Your task to perform on an android device: Open the phone app and click the voicemail tab. Image 0: 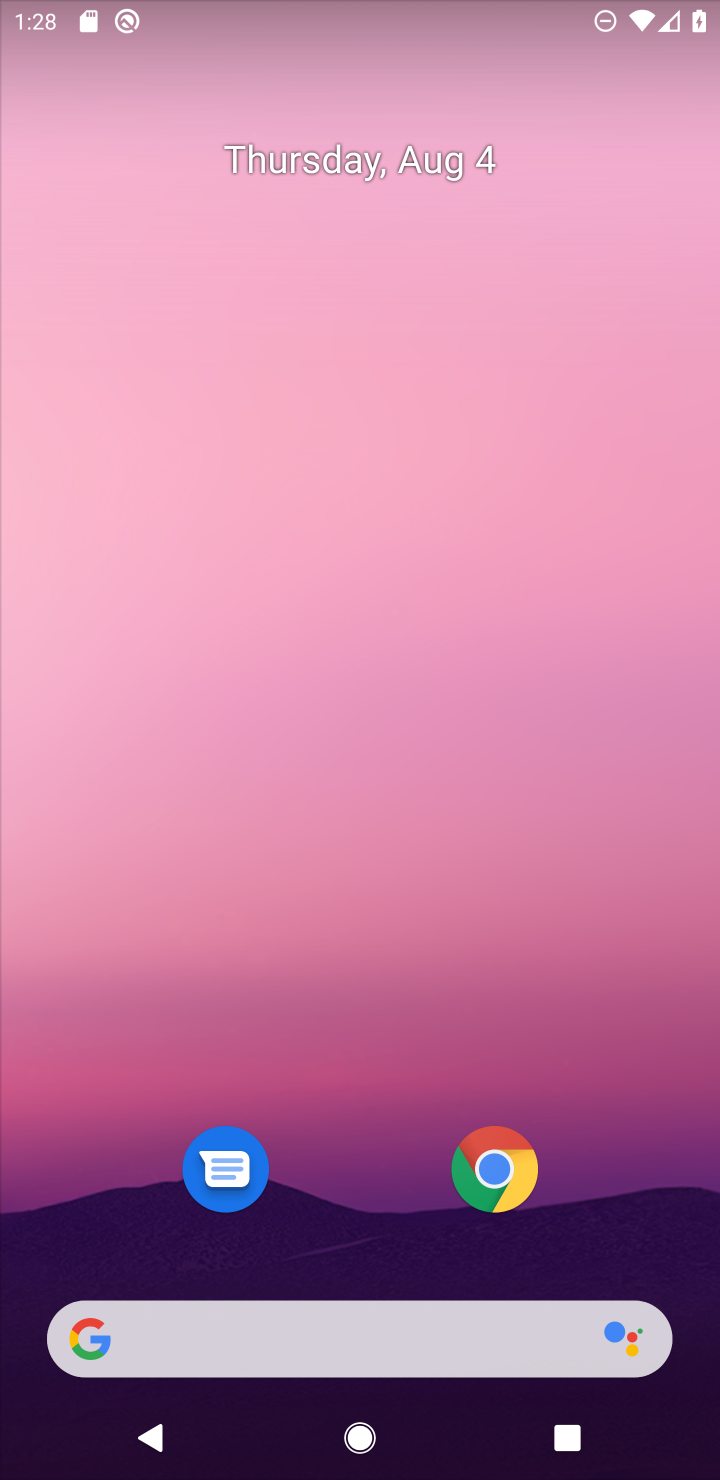
Step 0: drag from (335, 1155) to (421, 42)
Your task to perform on an android device: Open the phone app and click the voicemail tab. Image 1: 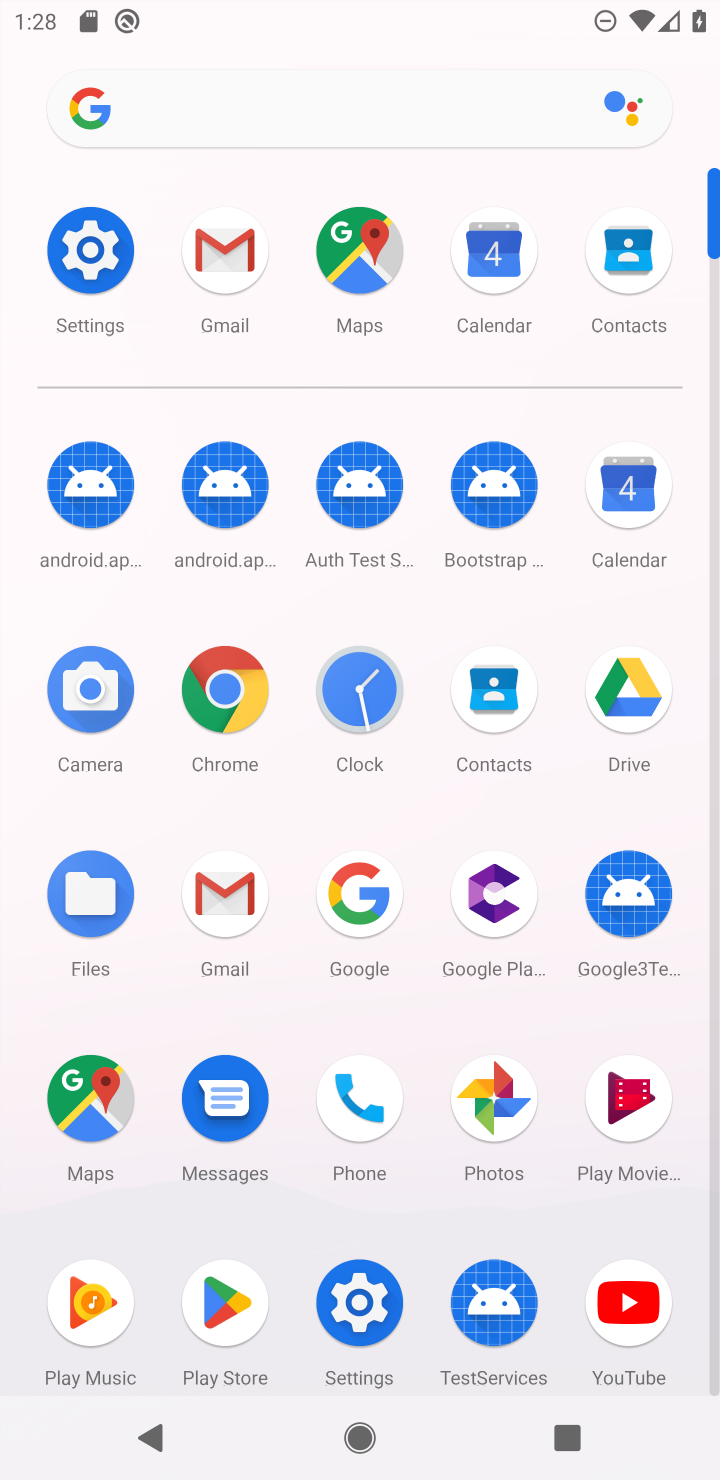
Step 1: click (350, 1114)
Your task to perform on an android device: Open the phone app and click the voicemail tab. Image 2: 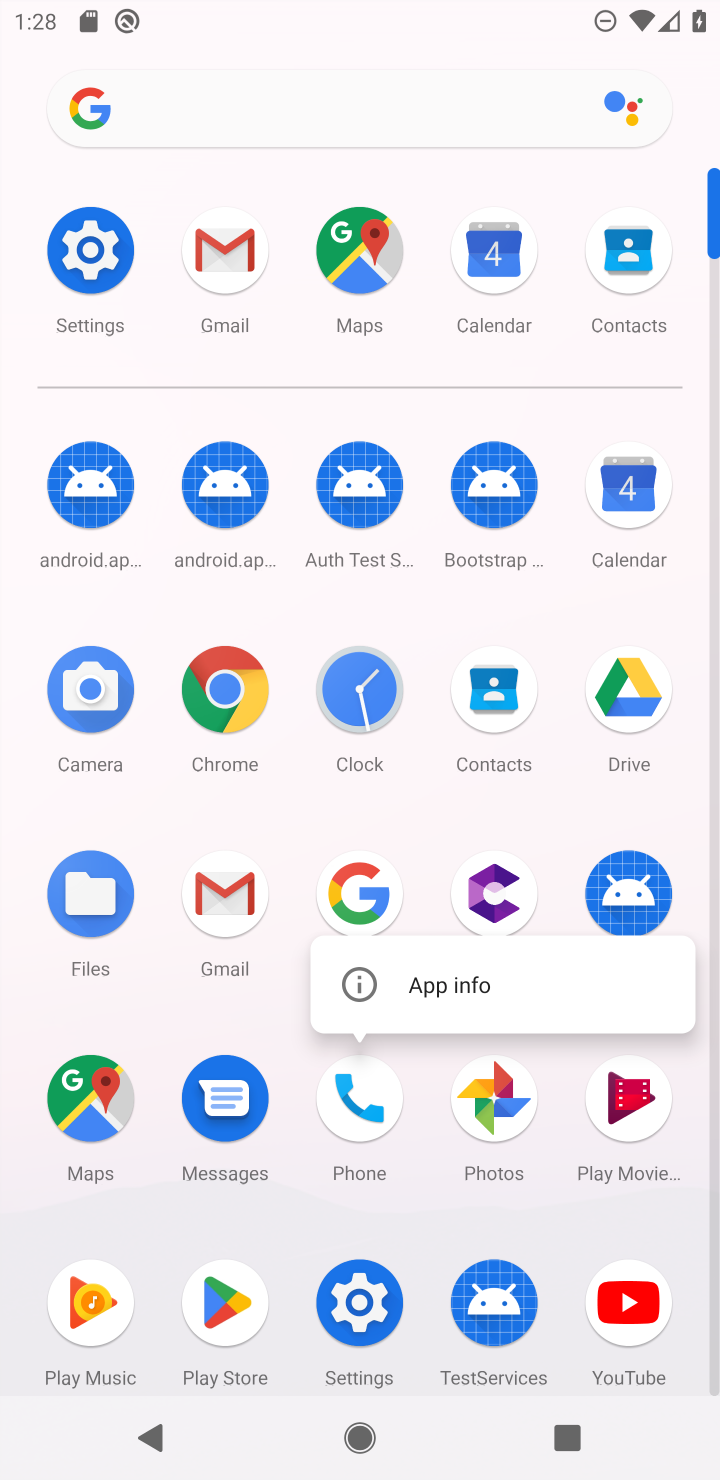
Step 2: click (348, 1105)
Your task to perform on an android device: Open the phone app and click the voicemail tab. Image 3: 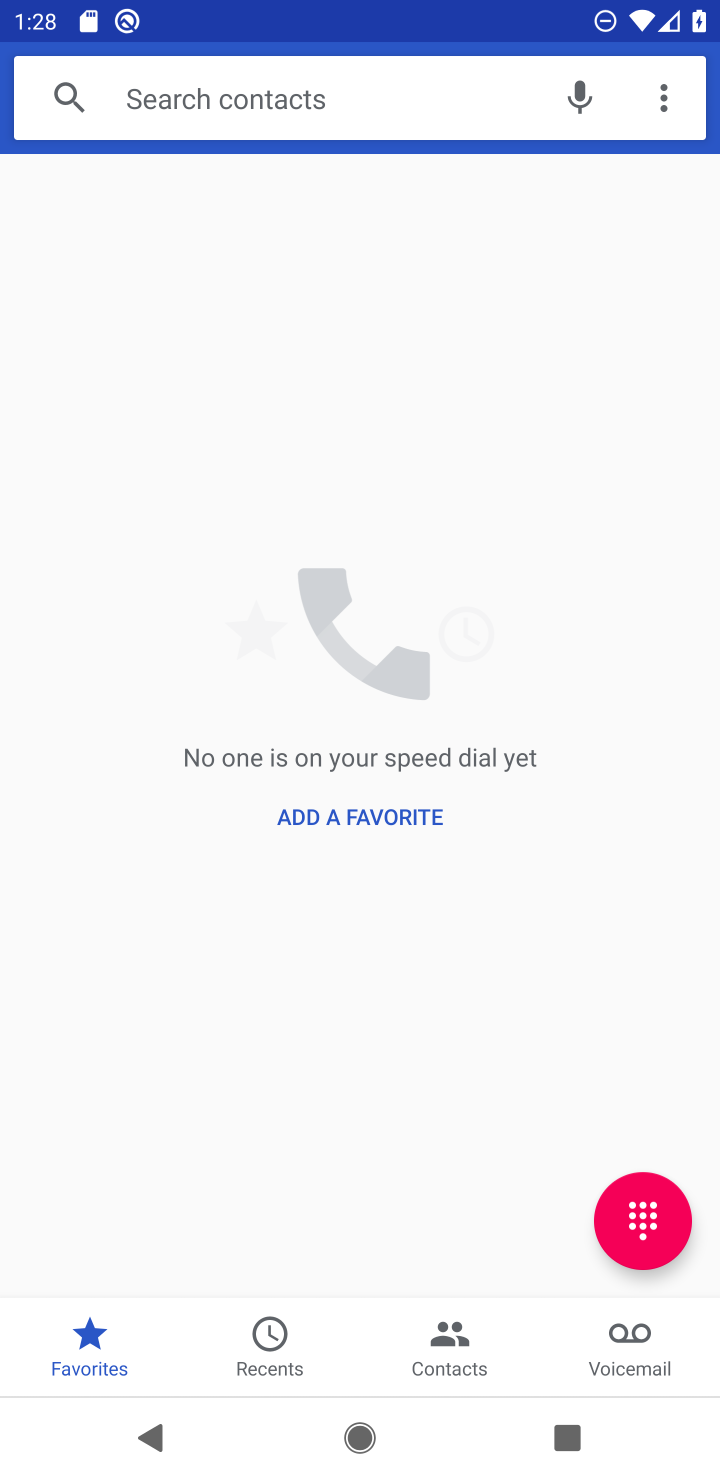
Step 3: click (614, 1358)
Your task to perform on an android device: Open the phone app and click the voicemail tab. Image 4: 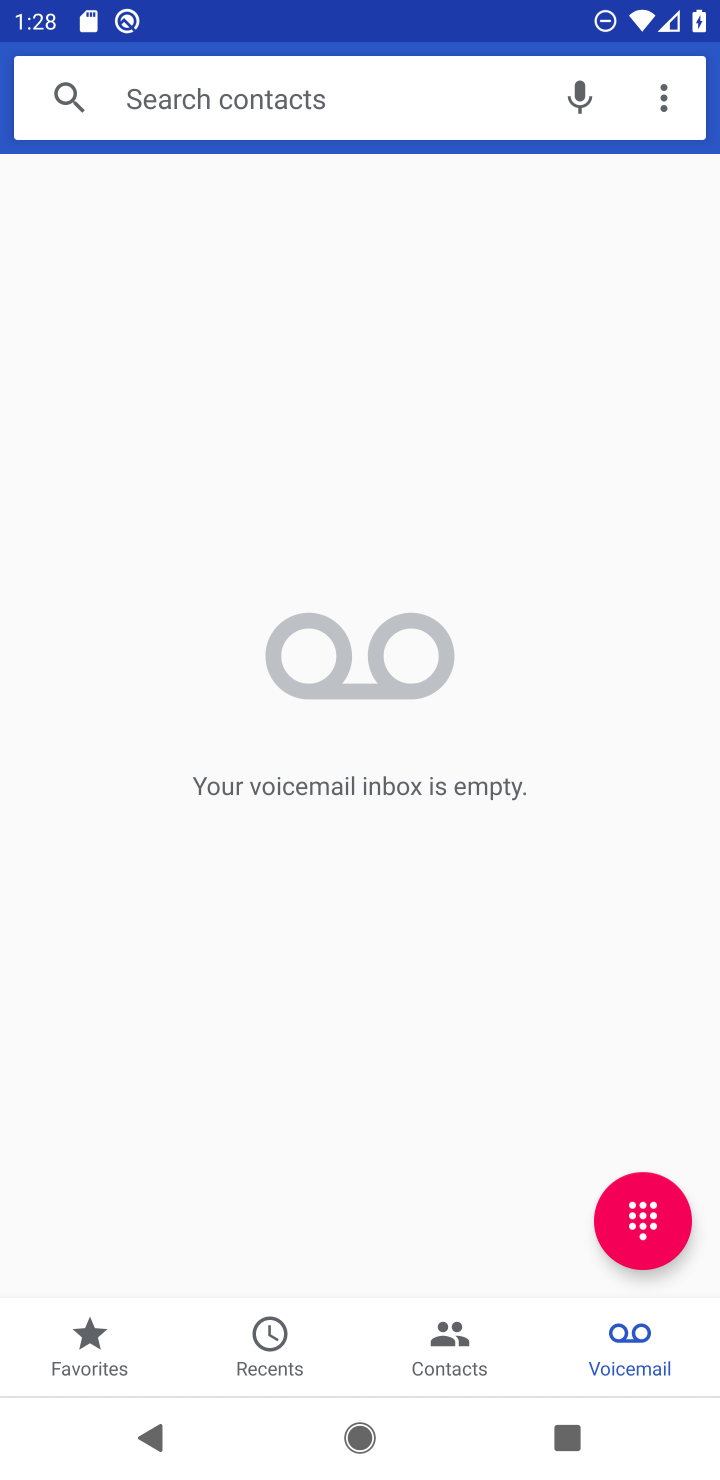
Step 4: task complete